Your task to perform on an android device: check battery use Image 0: 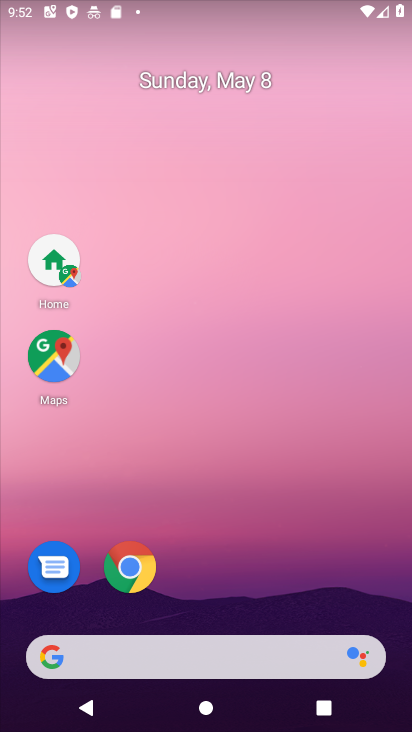
Step 0: drag from (353, 601) to (104, 9)
Your task to perform on an android device: check battery use Image 1: 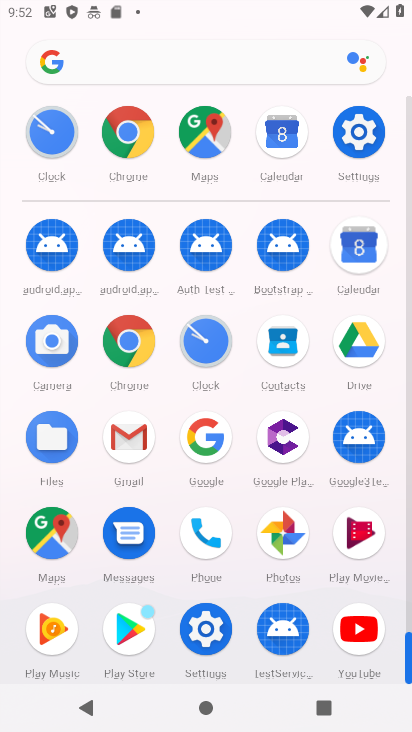
Step 1: click (365, 127)
Your task to perform on an android device: check battery use Image 2: 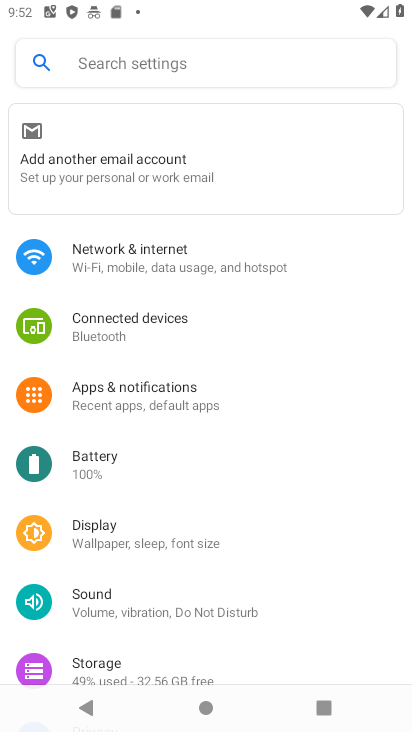
Step 2: click (81, 459)
Your task to perform on an android device: check battery use Image 3: 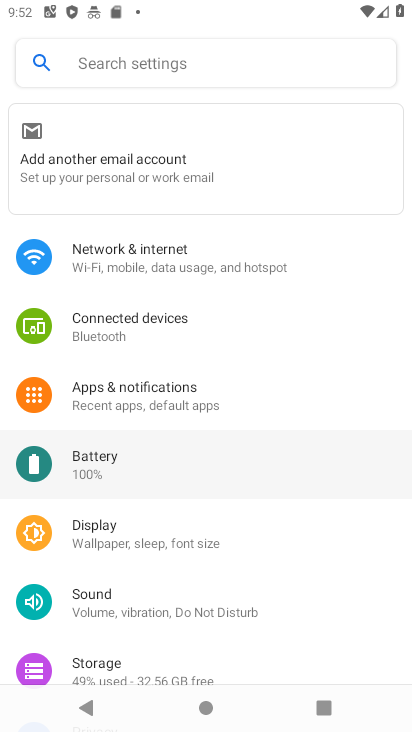
Step 3: click (81, 459)
Your task to perform on an android device: check battery use Image 4: 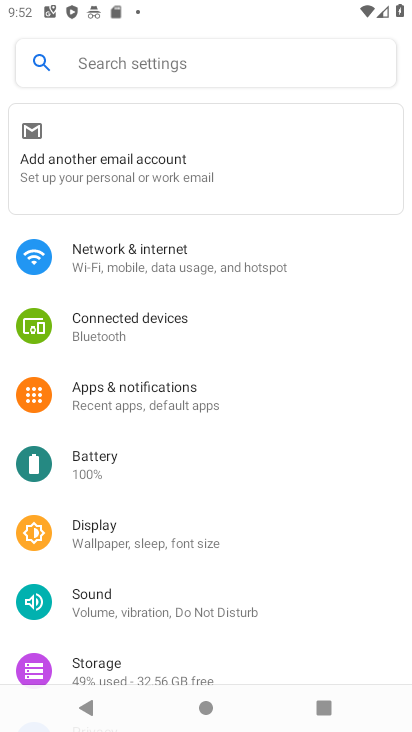
Step 4: click (81, 459)
Your task to perform on an android device: check battery use Image 5: 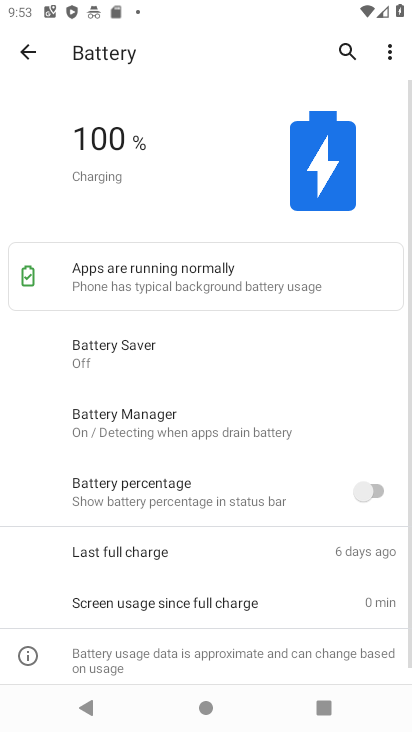
Step 5: task complete